Your task to perform on an android device: turn pop-ups on in chrome Image 0: 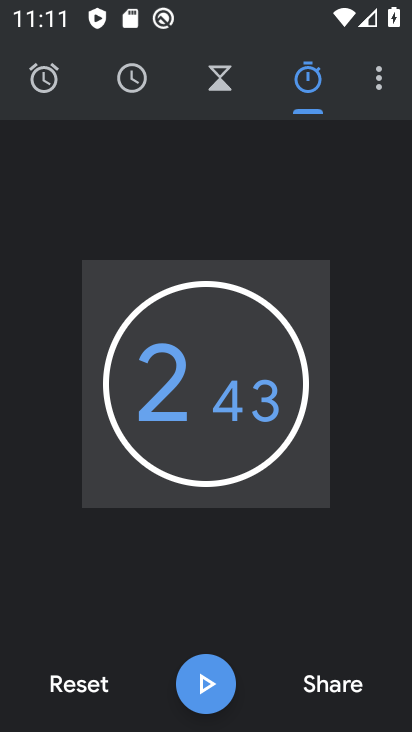
Step 0: press back button
Your task to perform on an android device: turn pop-ups on in chrome Image 1: 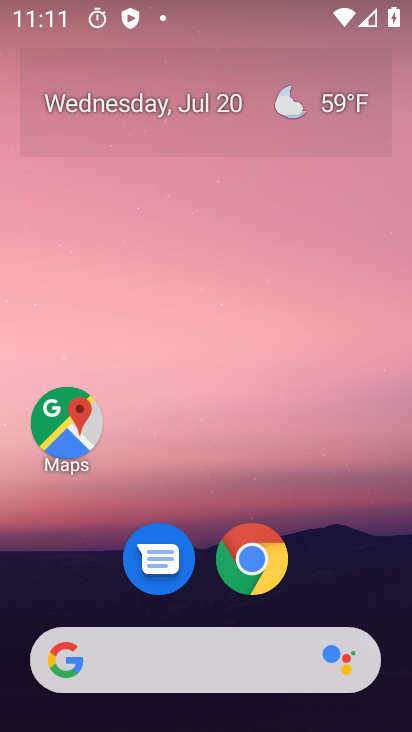
Step 1: click (263, 567)
Your task to perform on an android device: turn pop-ups on in chrome Image 2: 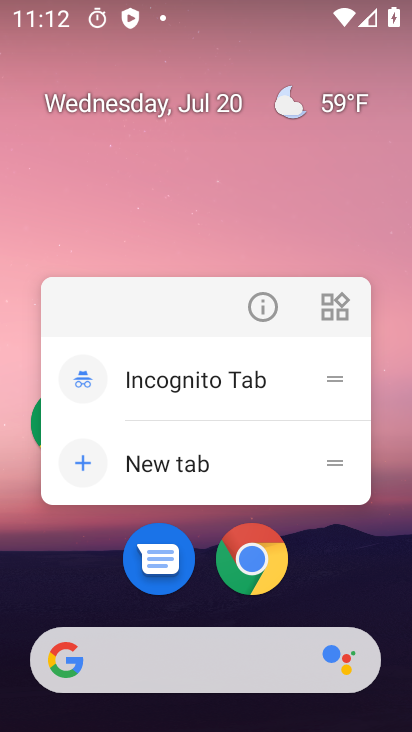
Step 2: click (248, 550)
Your task to perform on an android device: turn pop-ups on in chrome Image 3: 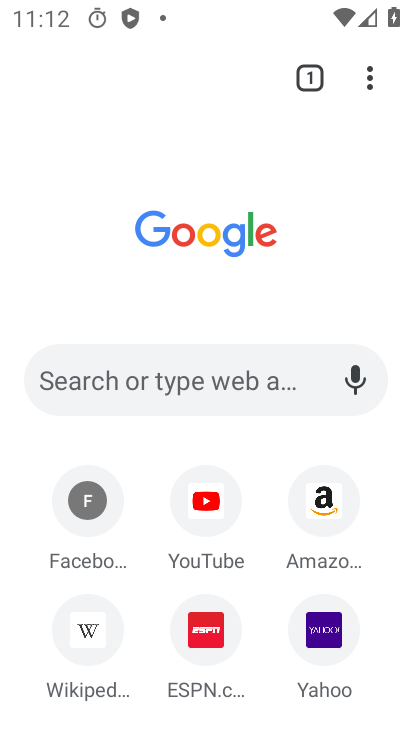
Step 3: drag from (379, 76) to (123, 648)
Your task to perform on an android device: turn pop-ups on in chrome Image 4: 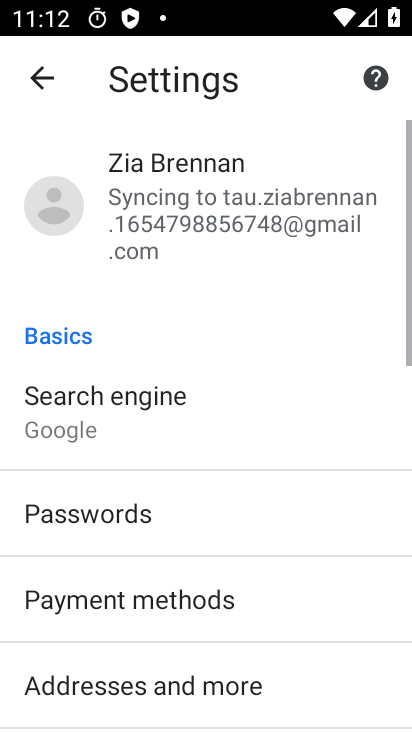
Step 4: drag from (203, 657) to (259, 108)
Your task to perform on an android device: turn pop-ups on in chrome Image 5: 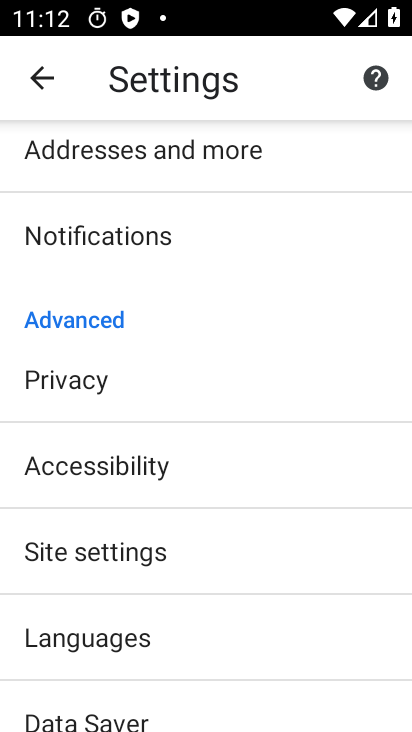
Step 5: click (128, 545)
Your task to perform on an android device: turn pop-ups on in chrome Image 6: 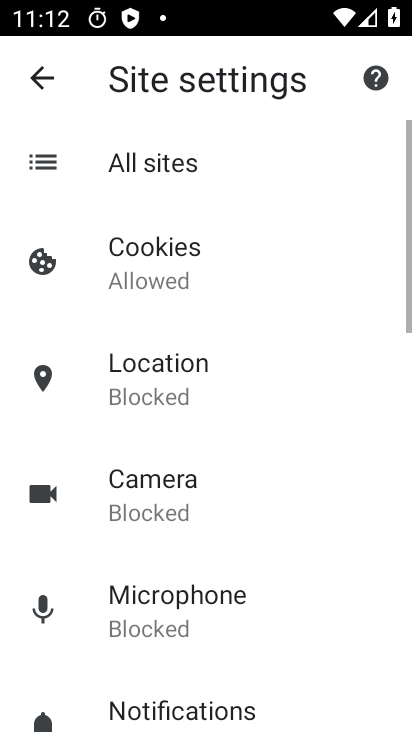
Step 6: drag from (150, 647) to (217, 152)
Your task to perform on an android device: turn pop-ups on in chrome Image 7: 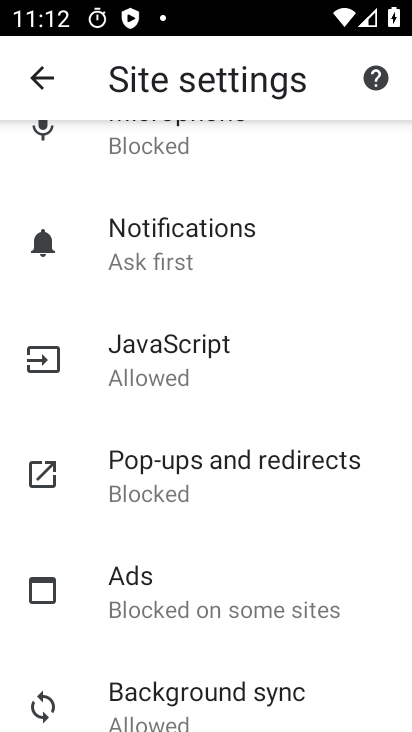
Step 7: click (203, 472)
Your task to perform on an android device: turn pop-ups on in chrome Image 8: 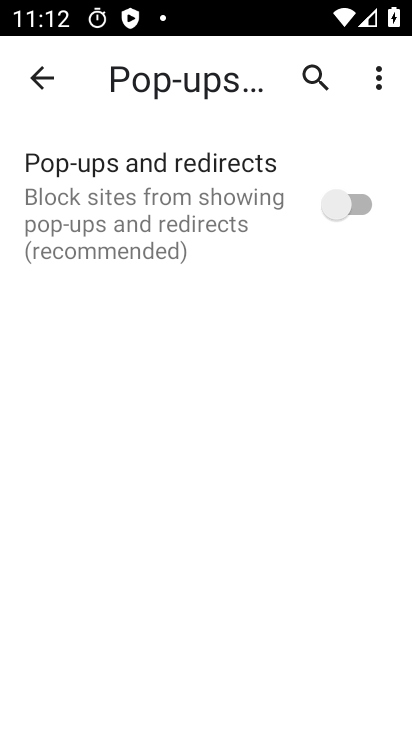
Step 8: click (352, 196)
Your task to perform on an android device: turn pop-ups on in chrome Image 9: 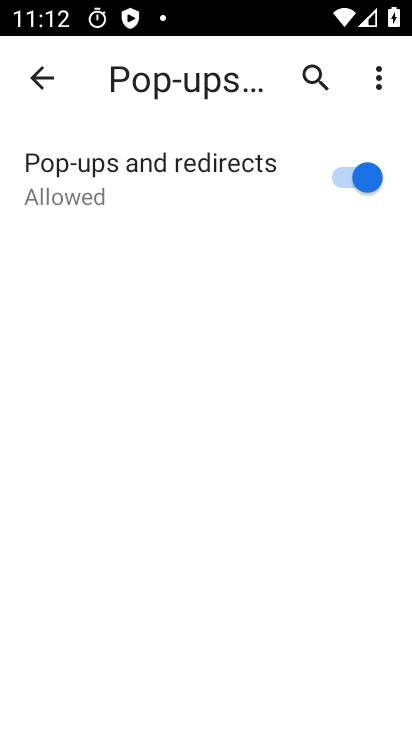
Step 9: task complete